Your task to perform on an android device: turn vacation reply on in the gmail app Image 0: 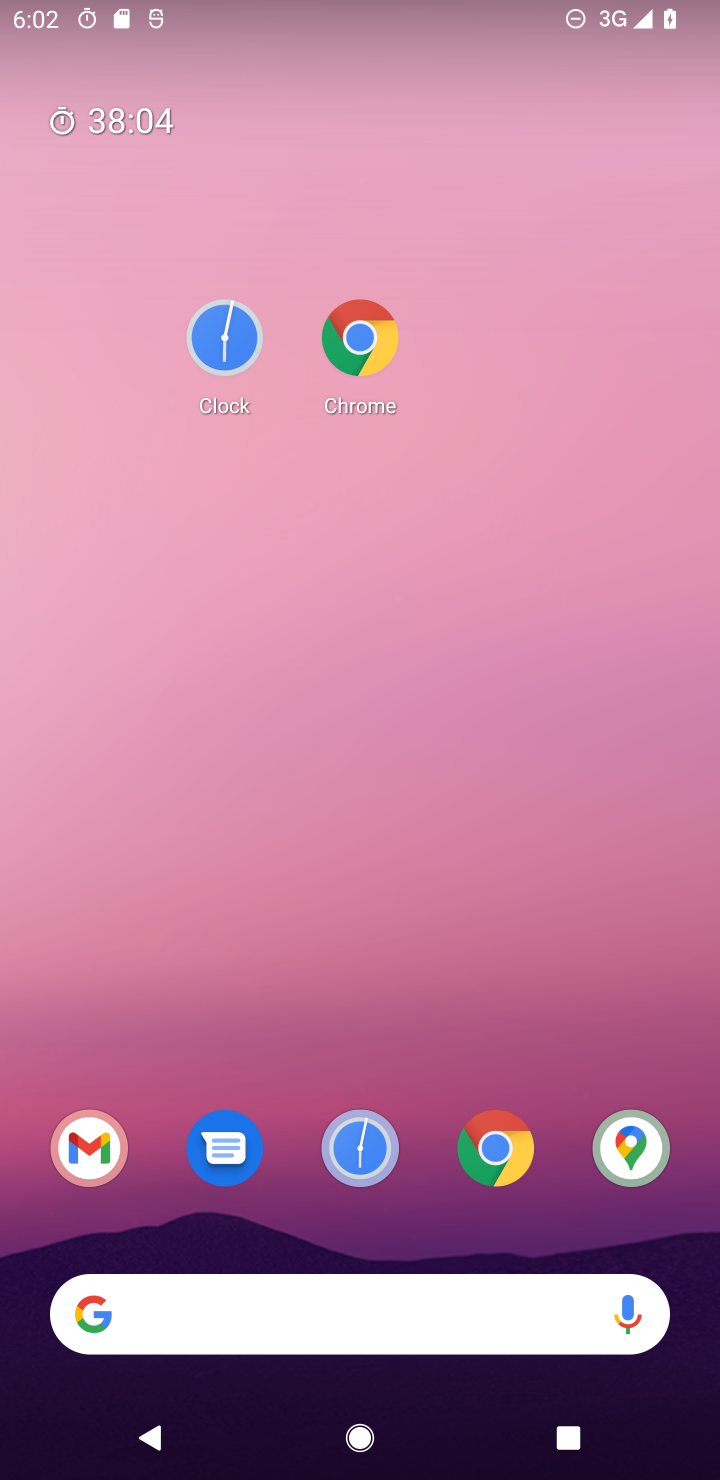
Step 0: click (504, 235)
Your task to perform on an android device: turn vacation reply on in the gmail app Image 1: 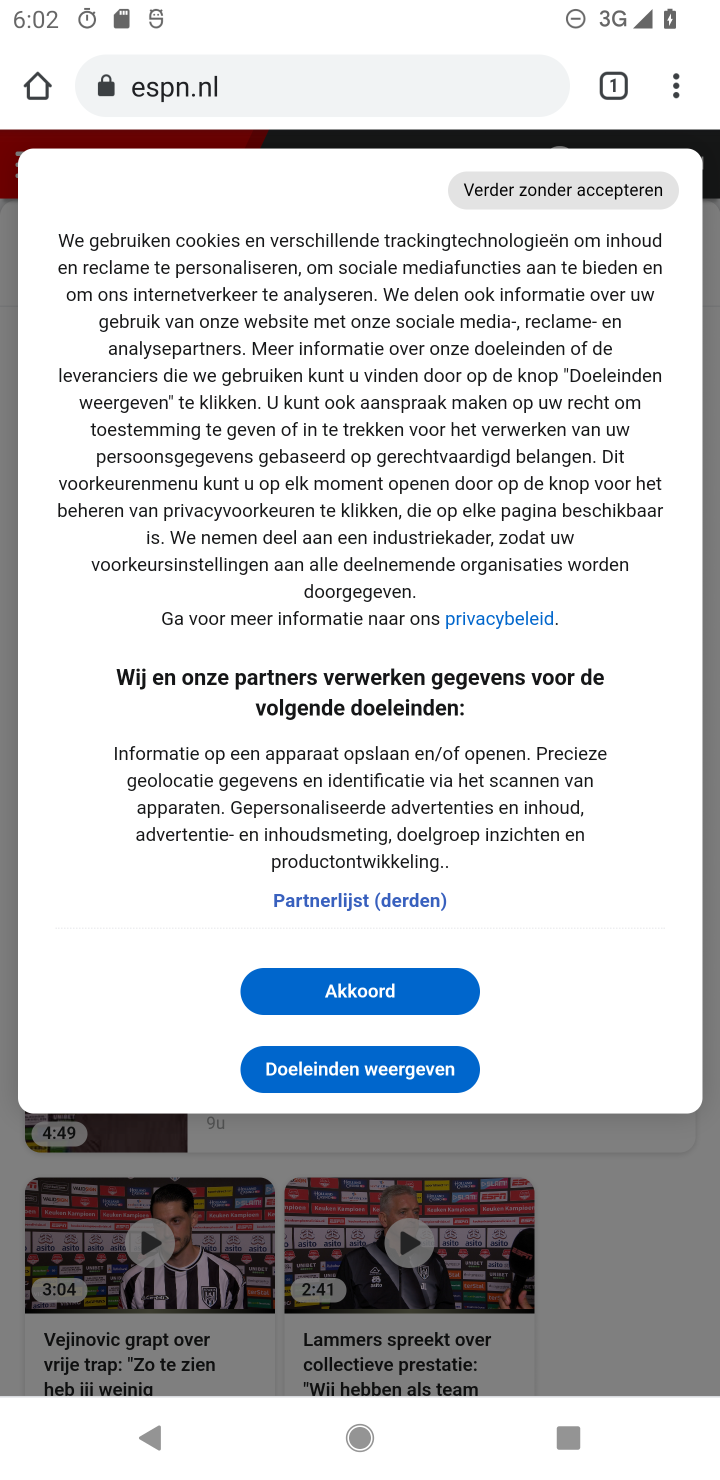
Step 1: press home button
Your task to perform on an android device: turn vacation reply on in the gmail app Image 2: 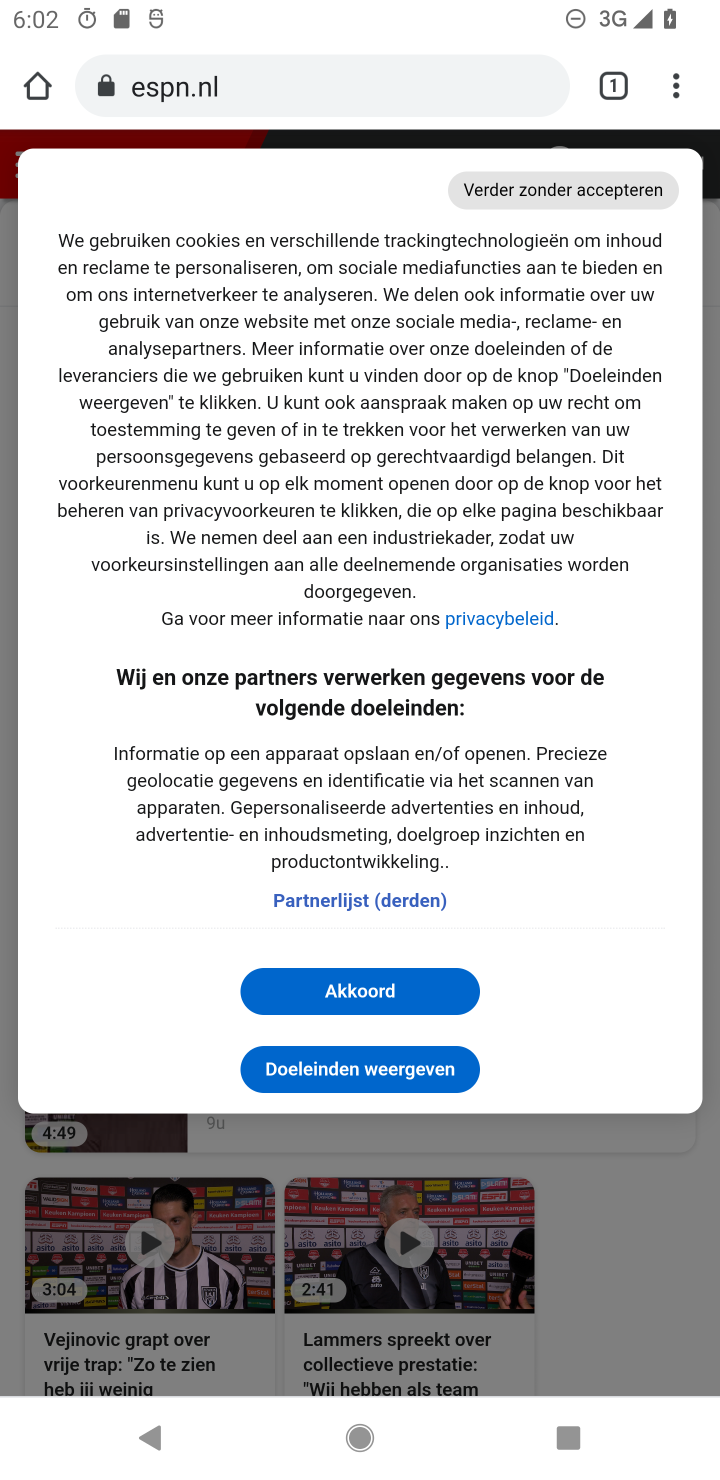
Step 2: drag from (321, 1298) to (424, 539)
Your task to perform on an android device: turn vacation reply on in the gmail app Image 3: 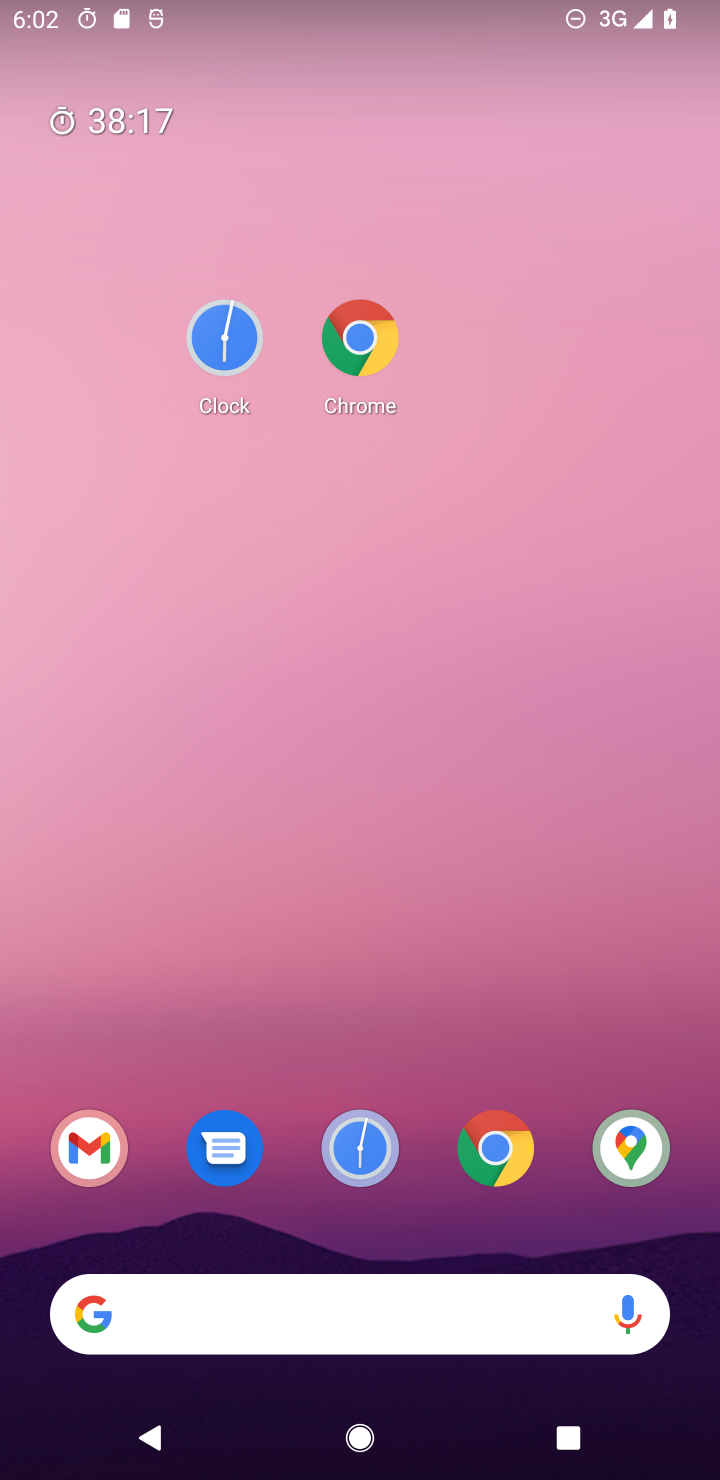
Step 3: click (341, 375)
Your task to perform on an android device: turn vacation reply on in the gmail app Image 4: 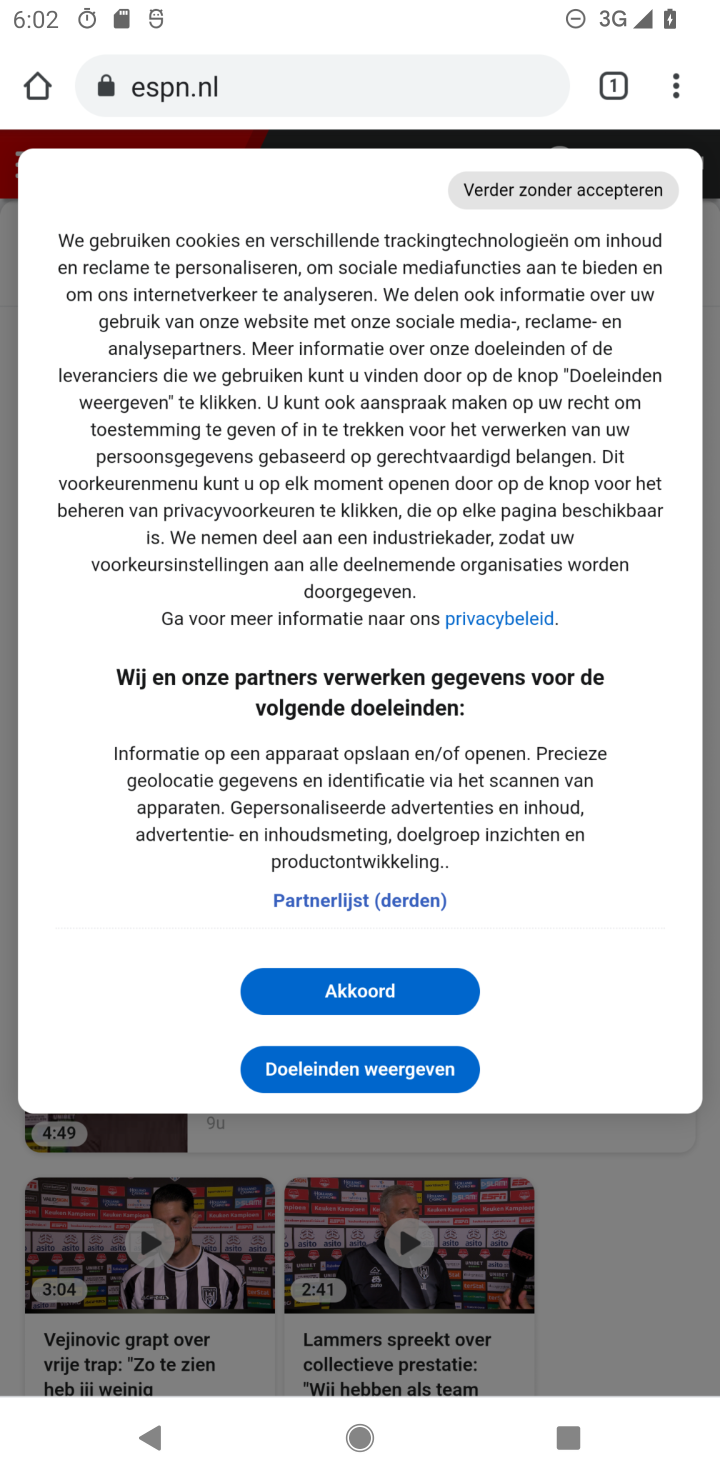
Step 4: click (306, 425)
Your task to perform on an android device: turn vacation reply on in the gmail app Image 5: 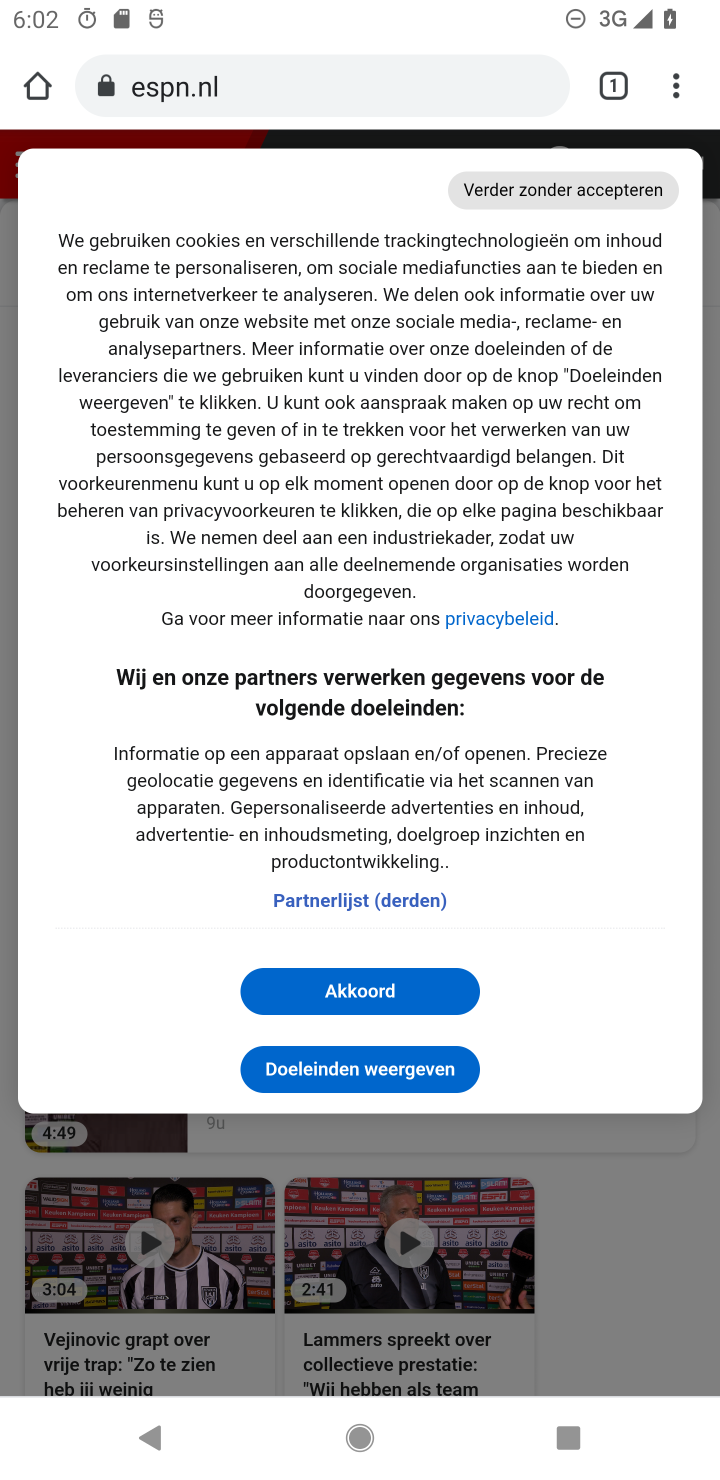
Step 5: press home button
Your task to perform on an android device: turn vacation reply on in the gmail app Image 6: 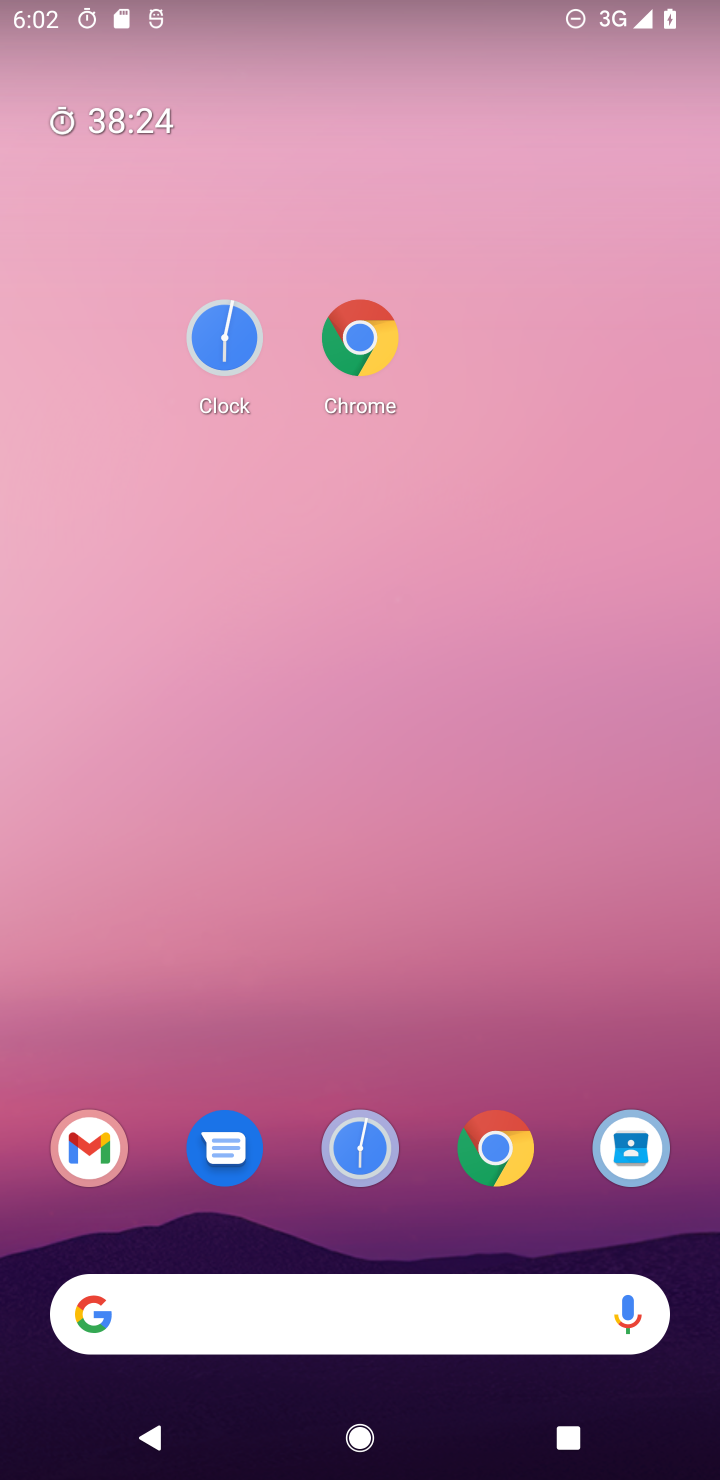
Step 6: drag from (478, 388) to (490, 271)
Your task to perform on an android device: turn vacation reply on in the gmail app Image 7: 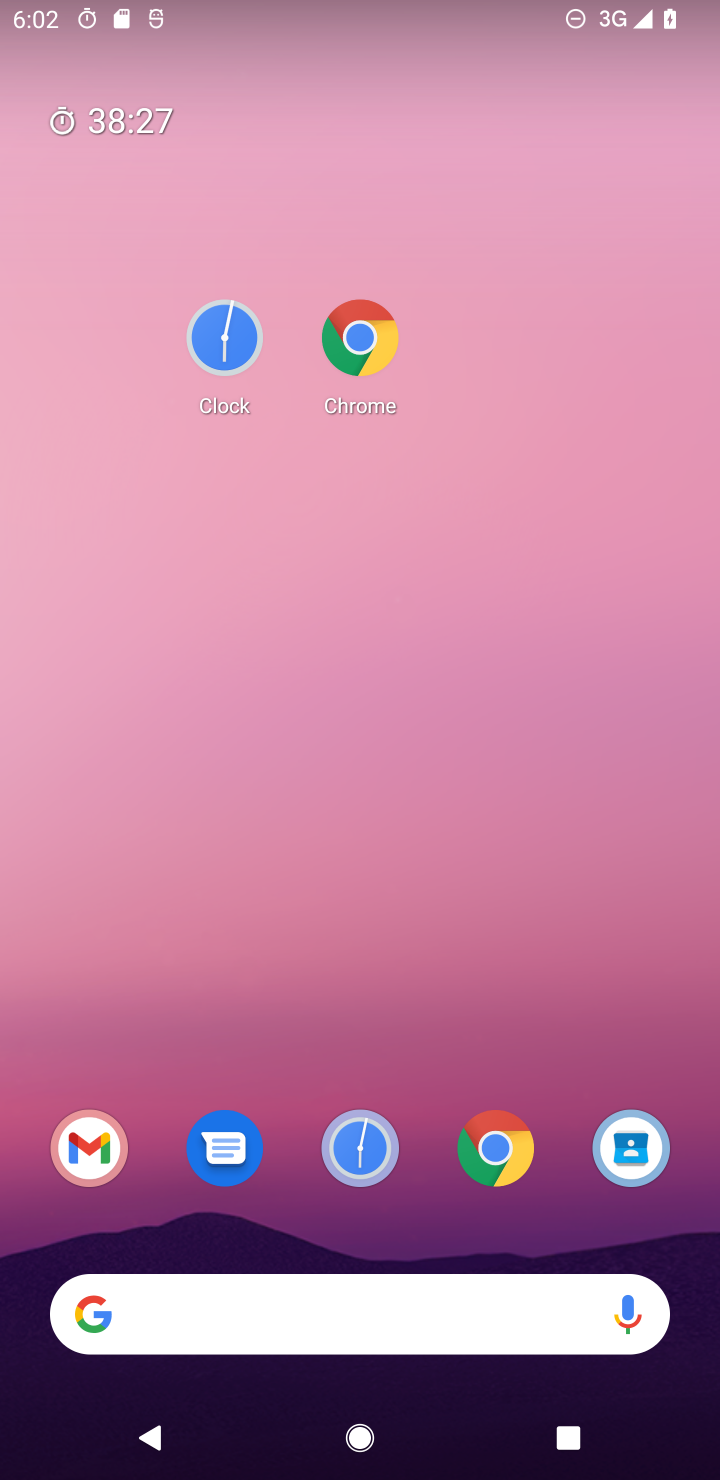
Step 7: drag from (271, 1184) to (239, 284)
Your task to perform on an android device: turn vacation reply on in the gmail app Image 8: 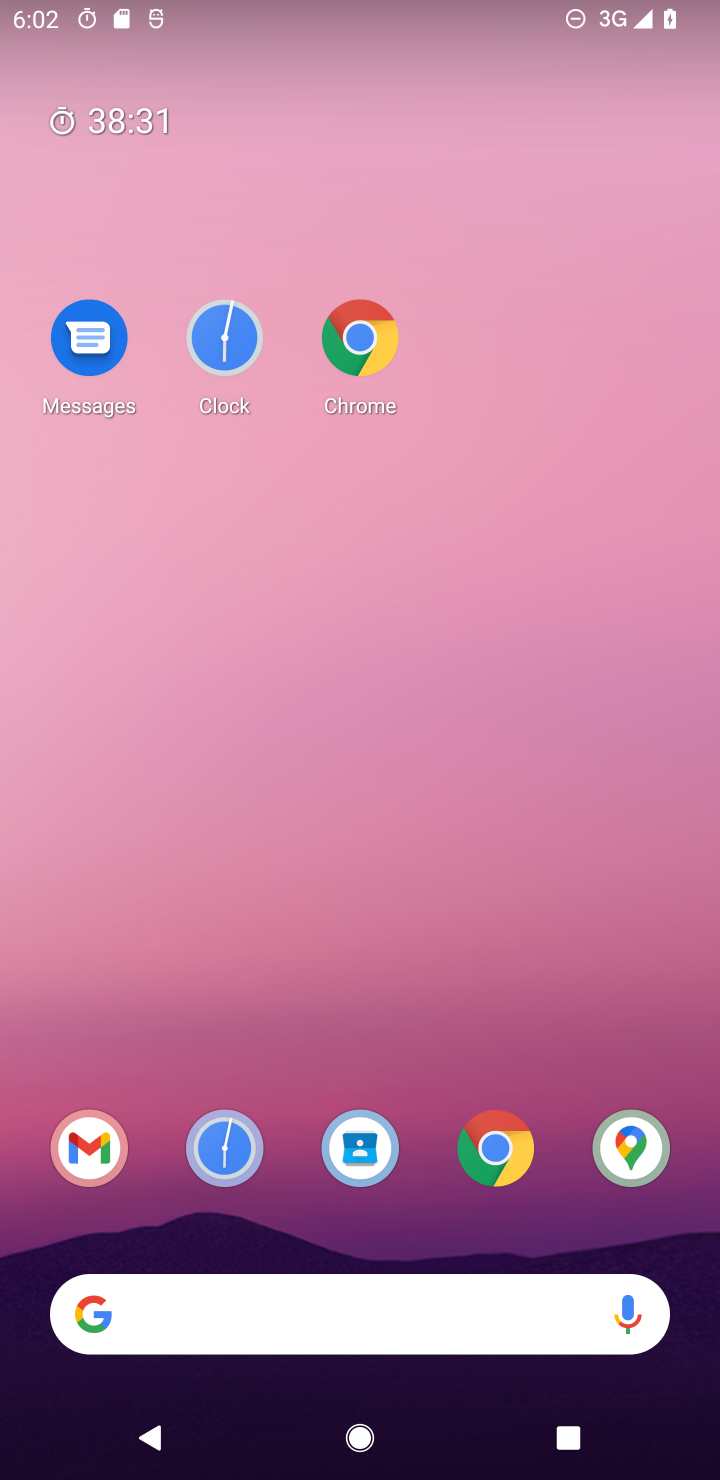
Step 8: click (77, 1136)
Your task to perform on an android device: turn vacation reply on in the gmail app Image 9: 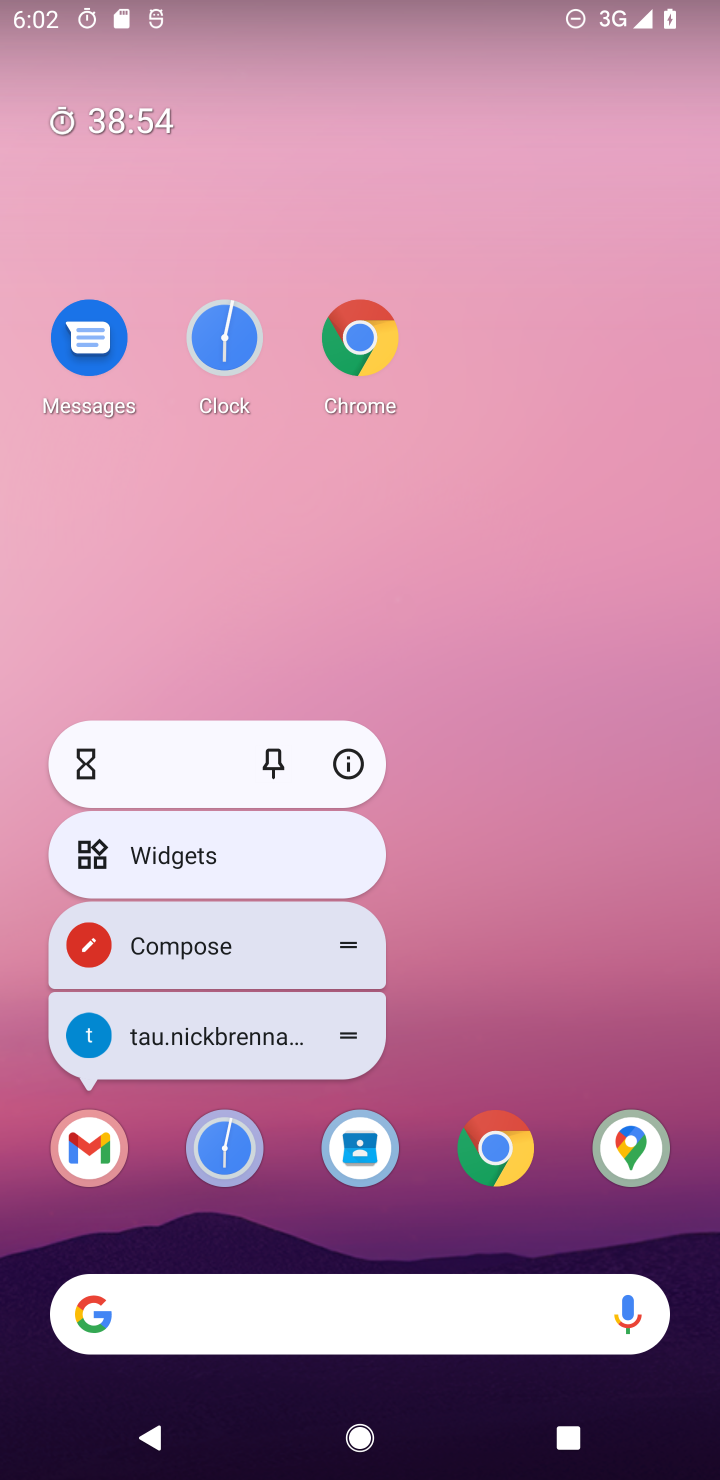
Step 9: click (352, 762)
Your task to perform on an android device: turn vacation reply on in the gmail app Image 10: 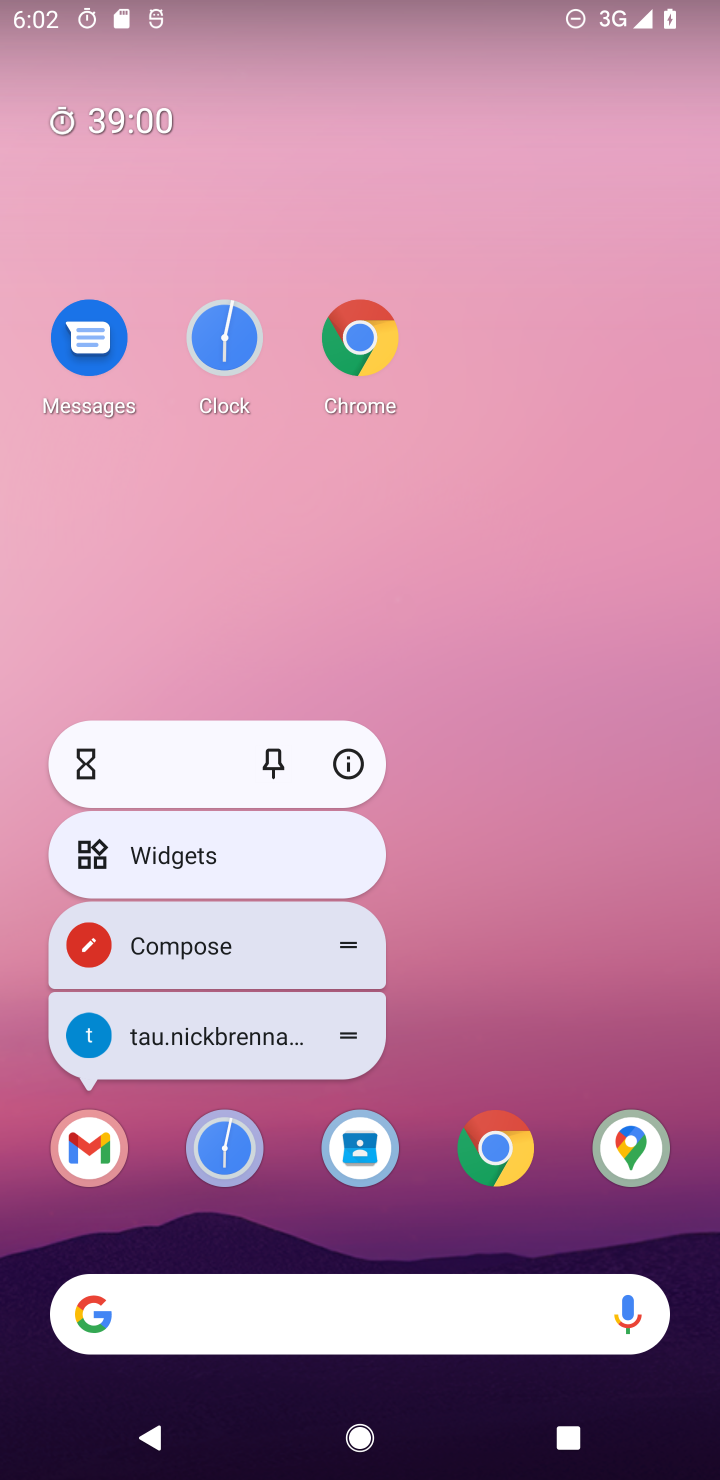
Step 10: click (354, 763)
Your task to perform on an android device: turn vacation reply on in the gmail app Image 11: 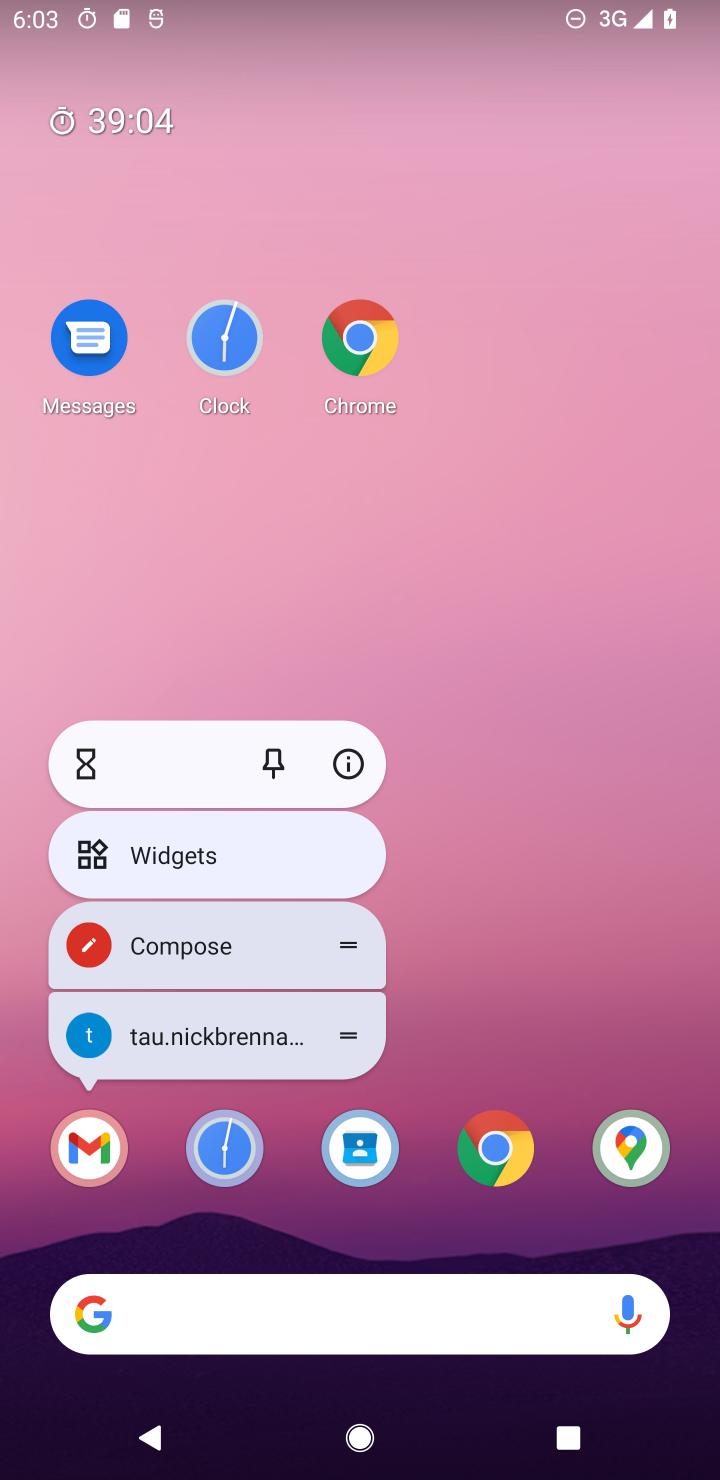
Step 11: click (354, 763)
Your task to perform on an android device: turn vacation reply on in the gmail app Image 12: 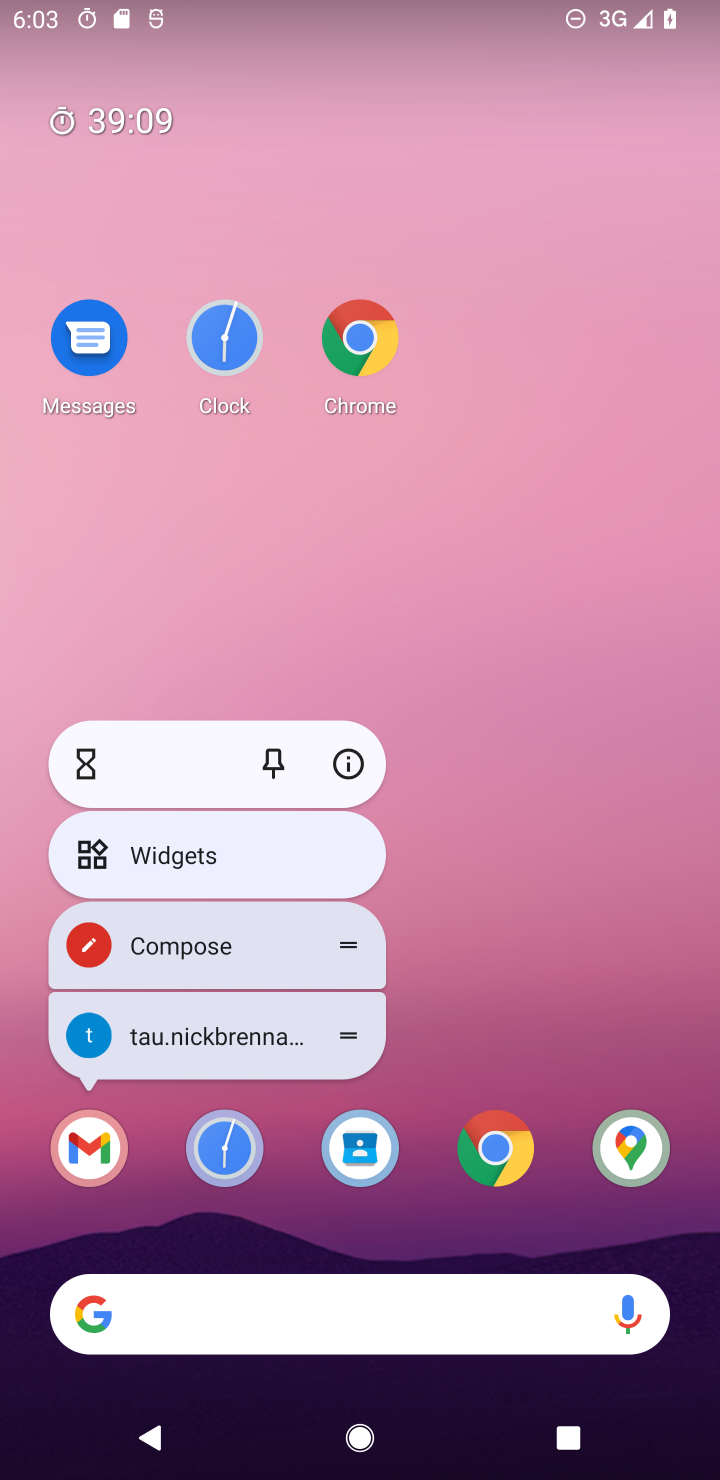
Step 12: click (362, 753)
Your task to perform on an android device: turn vacation reply on in the gmail app Image 13: 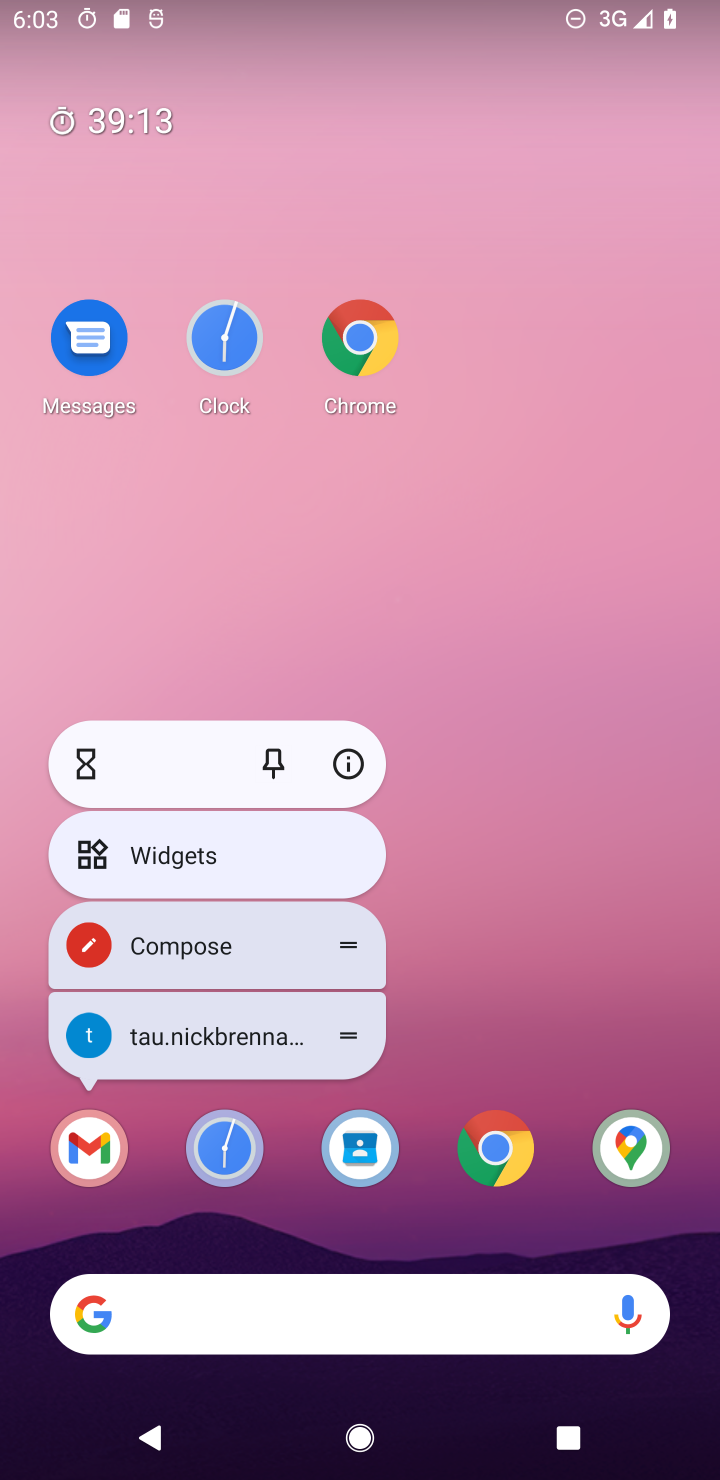
Step 13: click (336, 761)
Your task to perform on an android device: turn vacation reply on in the gmail app Image 14: 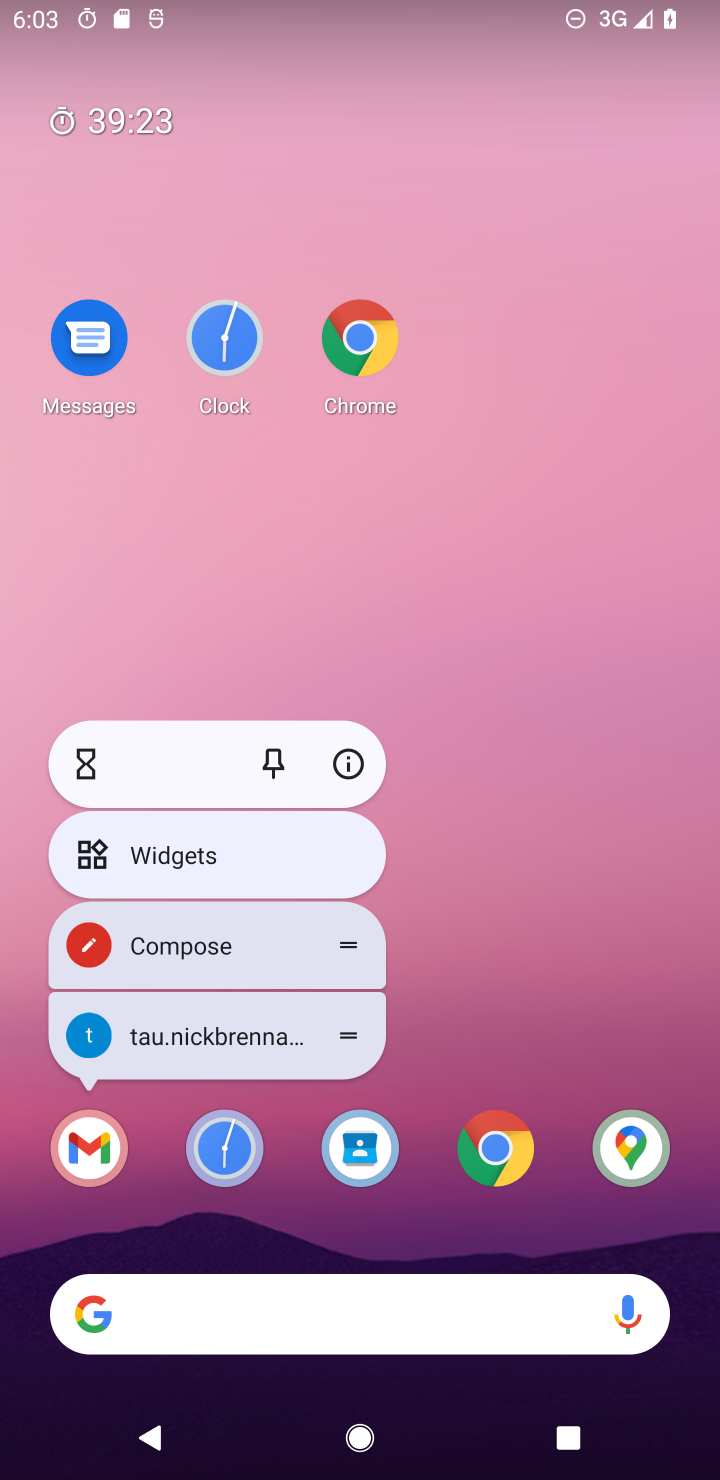
Step 14: click (348, 753)
Your task to perform on an android device: turn vacation reply on in the gmail app Image 15: 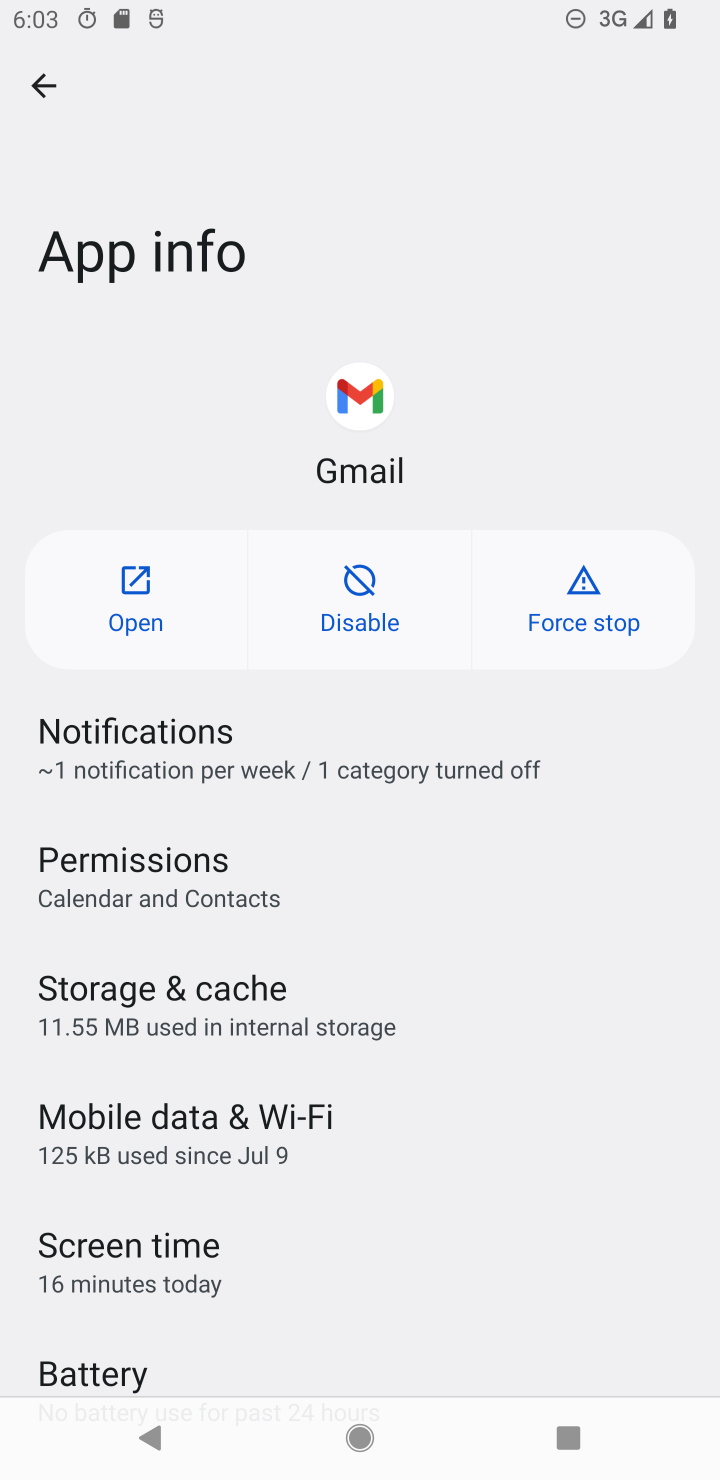
Step 15: click (153, 594)
Your task to perform on an android device: turn vacation reply on in the gmail app Image 16: 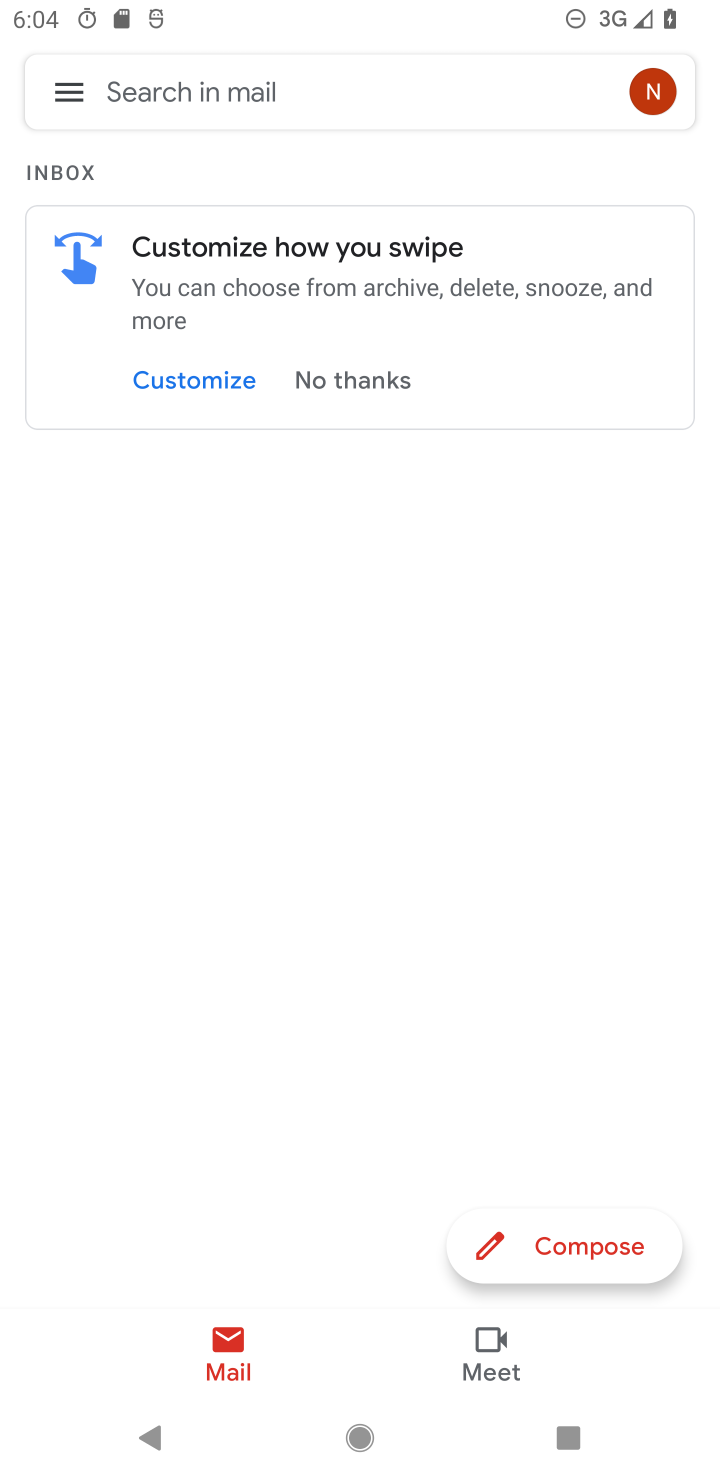
Step 16: drag from (399, 1196) to (530, 463)
Your task to perform on an android device: turn vacation reply on in the gmail app Image 17: 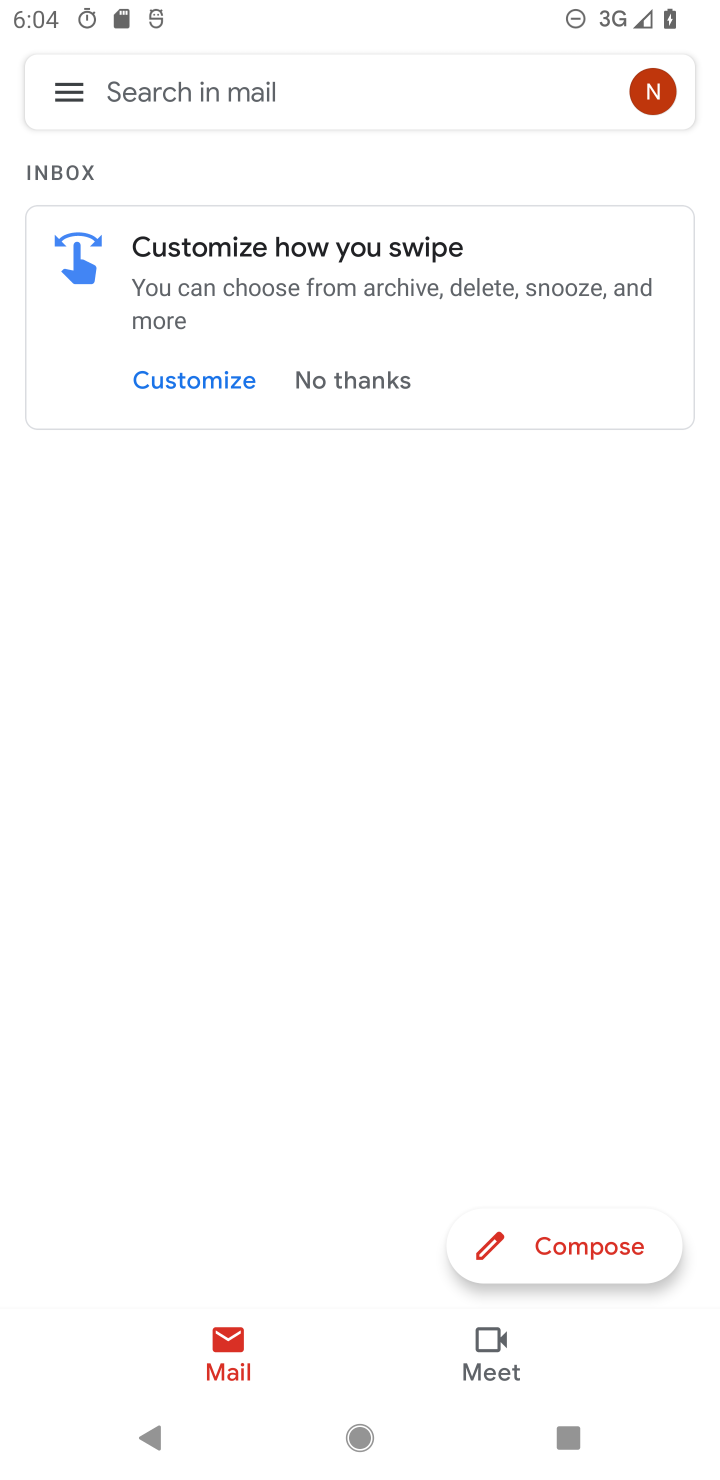
Step 17: drag from (359, 1334) to (361, 623)
Your task to perform on an android device: turn vacation reply on in the gmail app Image 18: 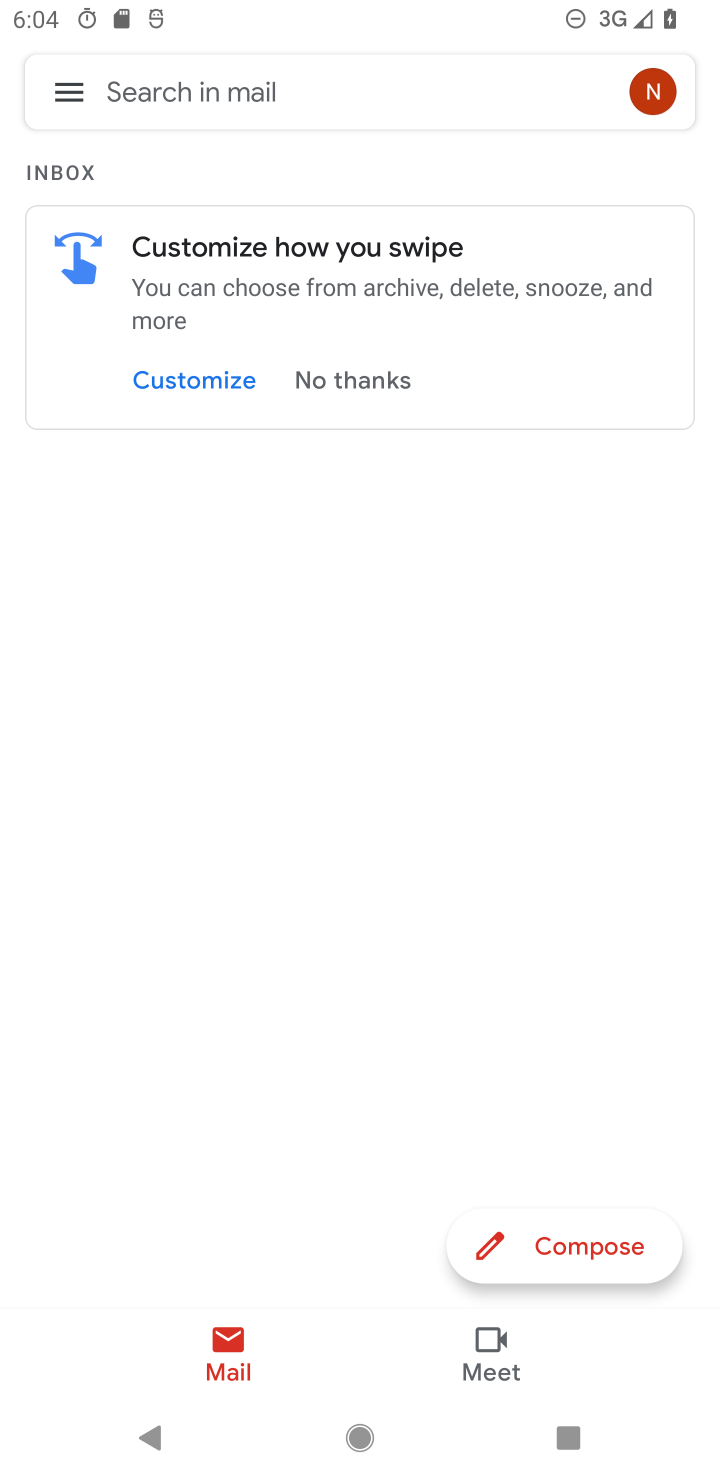
Step 18: drag from (384, 1150) to (503, 496)
Your task to perform on an android device: turn vacation reply on in the gmail app Image 19: 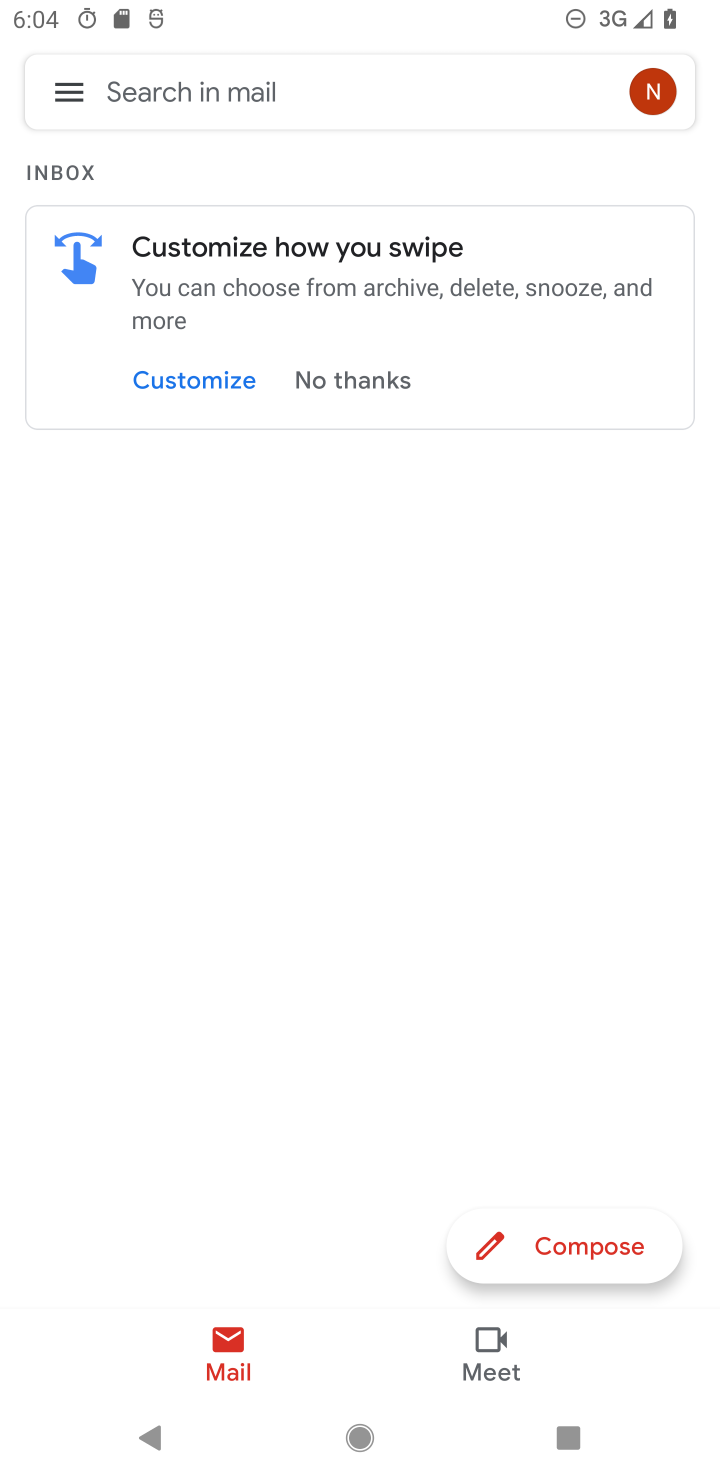
Step 19: click (57, 74)
Your task to perform on an android device: turn vacation reply on in the gmail app Image 20: 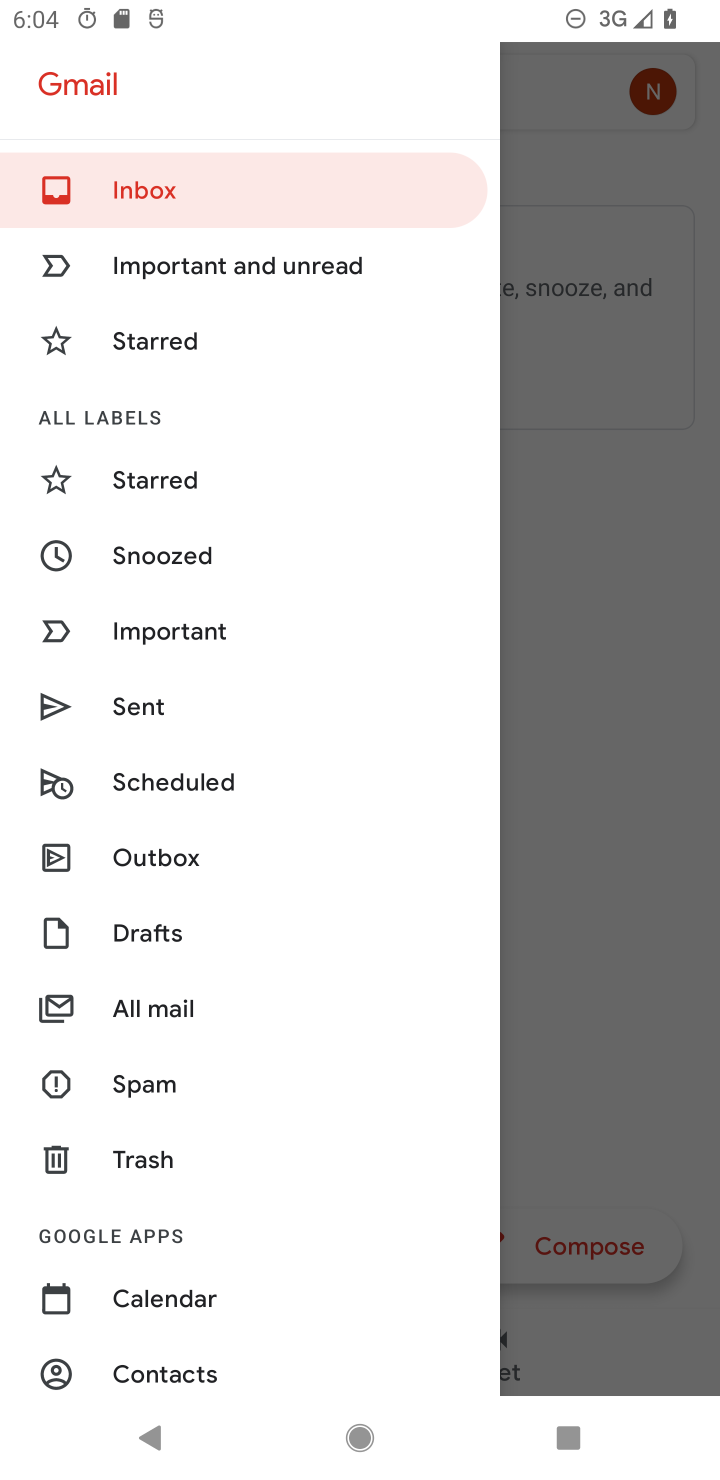
Step 20: drag from (226, 1060) to (317, 363)
Your task to perform on an android device: turn vacation reply on in the gmail app Image 21: 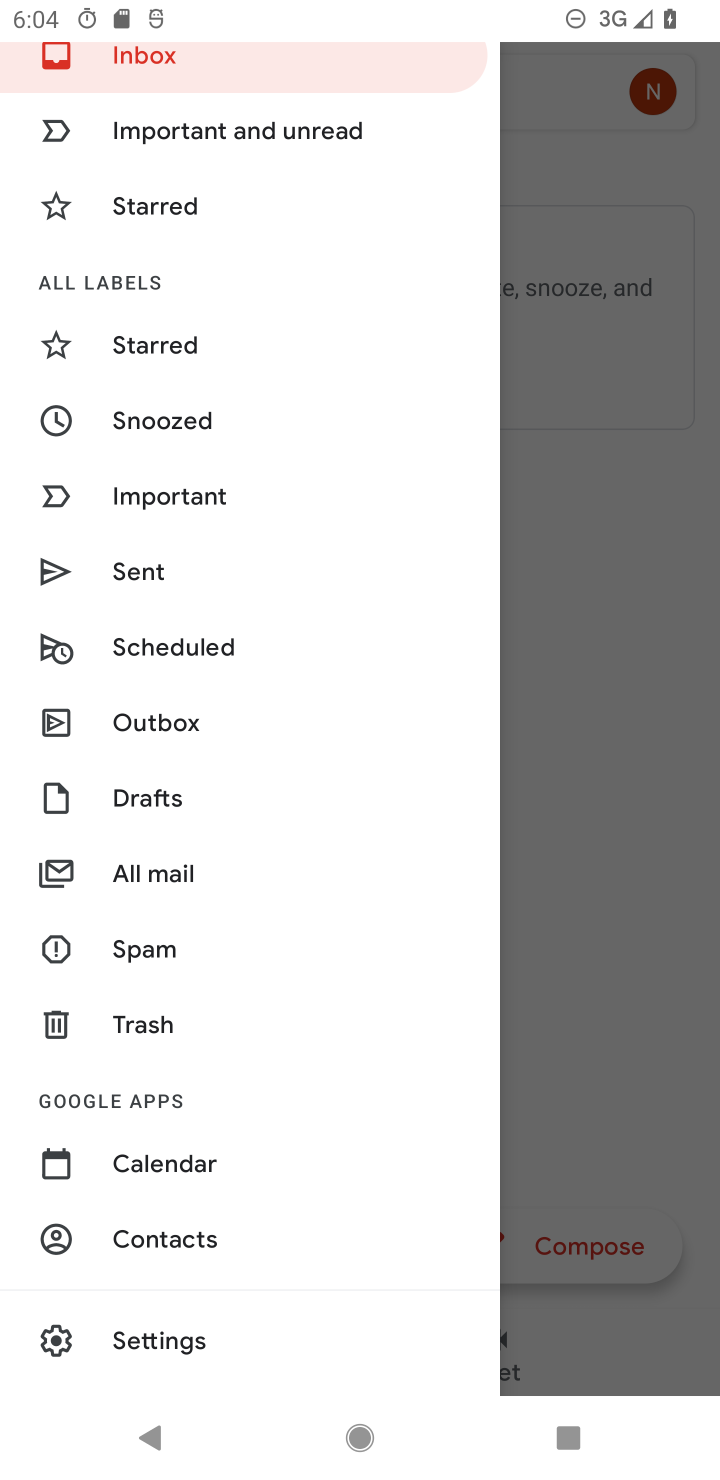
Step 21: click (154, 1323)
Your task to perform on an android device: turn vacation reply on in the gmail app Image 22: 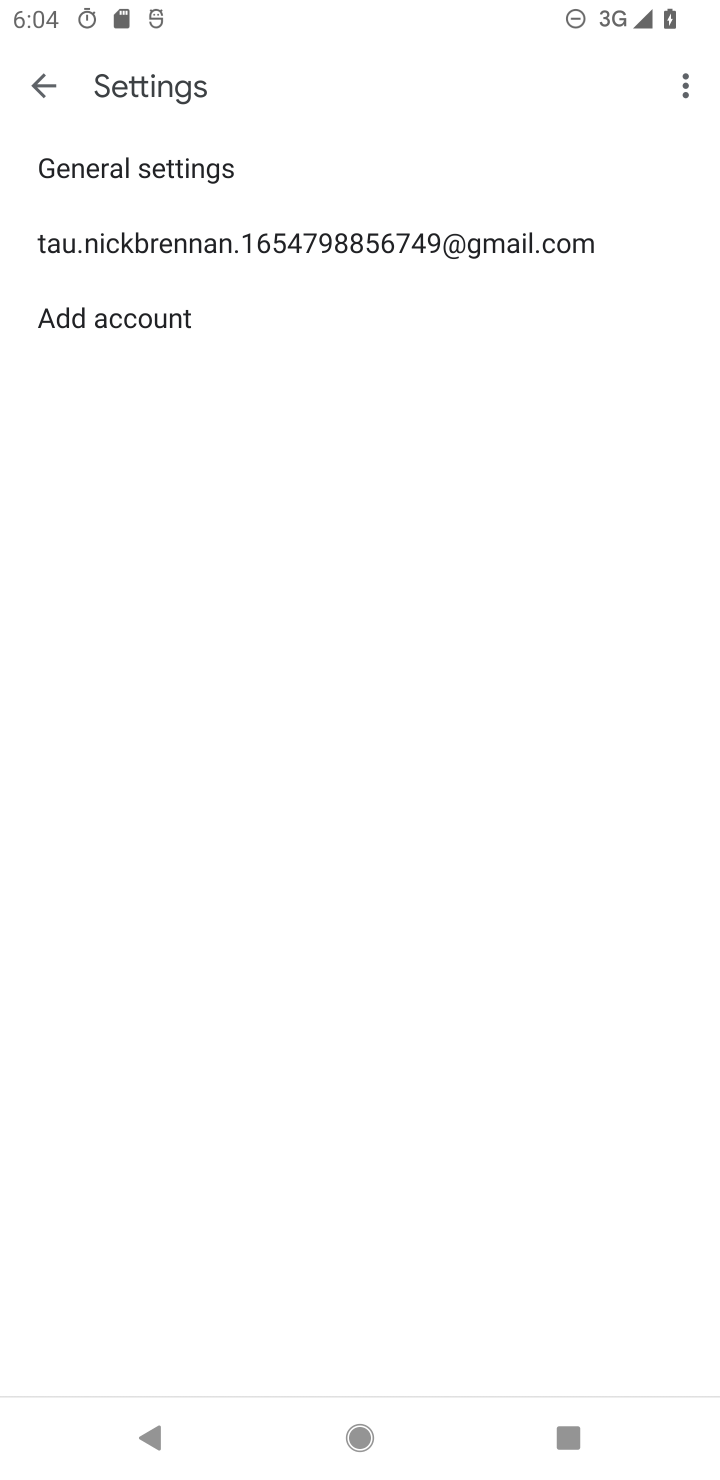
Step 22: click (252, 249)
Your task to perform on an android device: turn vacation reply on in the gmail app Image 23: 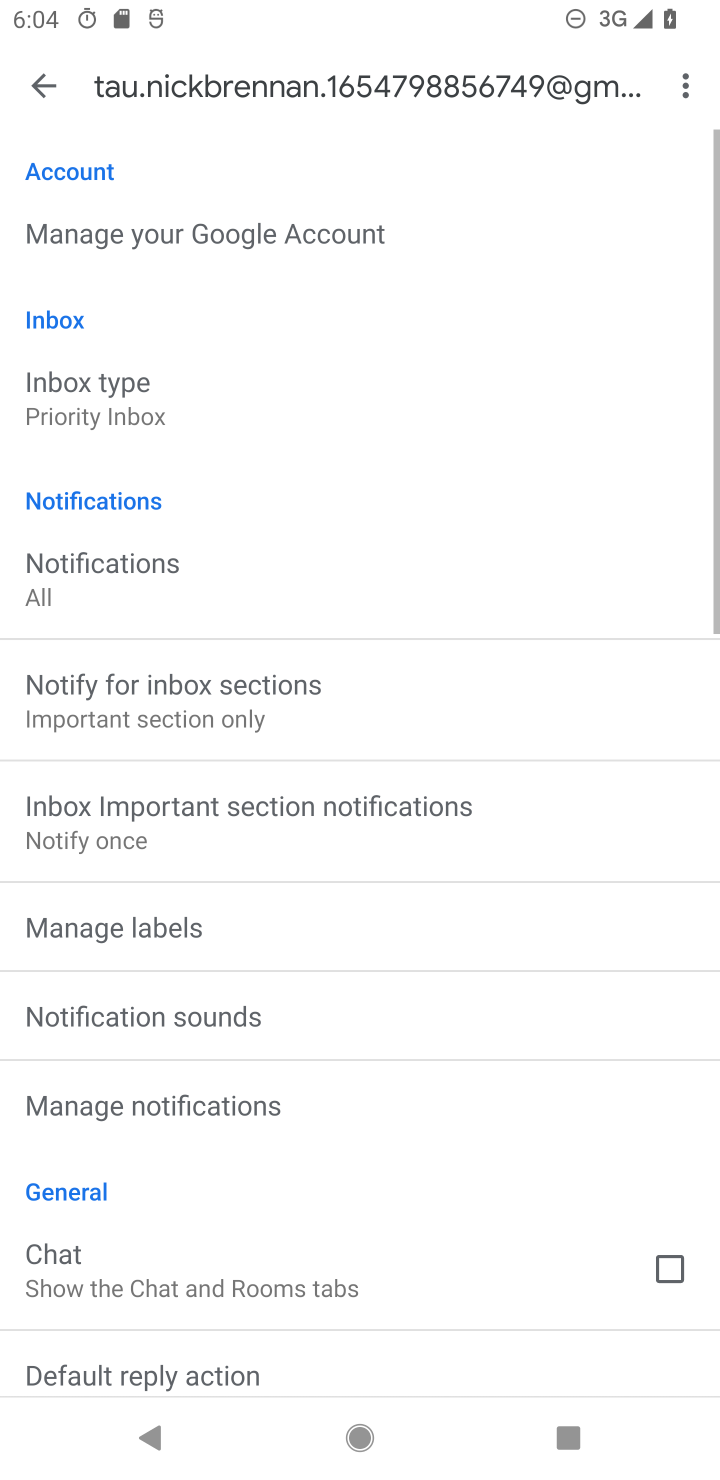
Step 23: drag from (229, 1187) to (395, 196)
Your task to perform on an android device: turn vacation reply on in the gmail app Image 24: 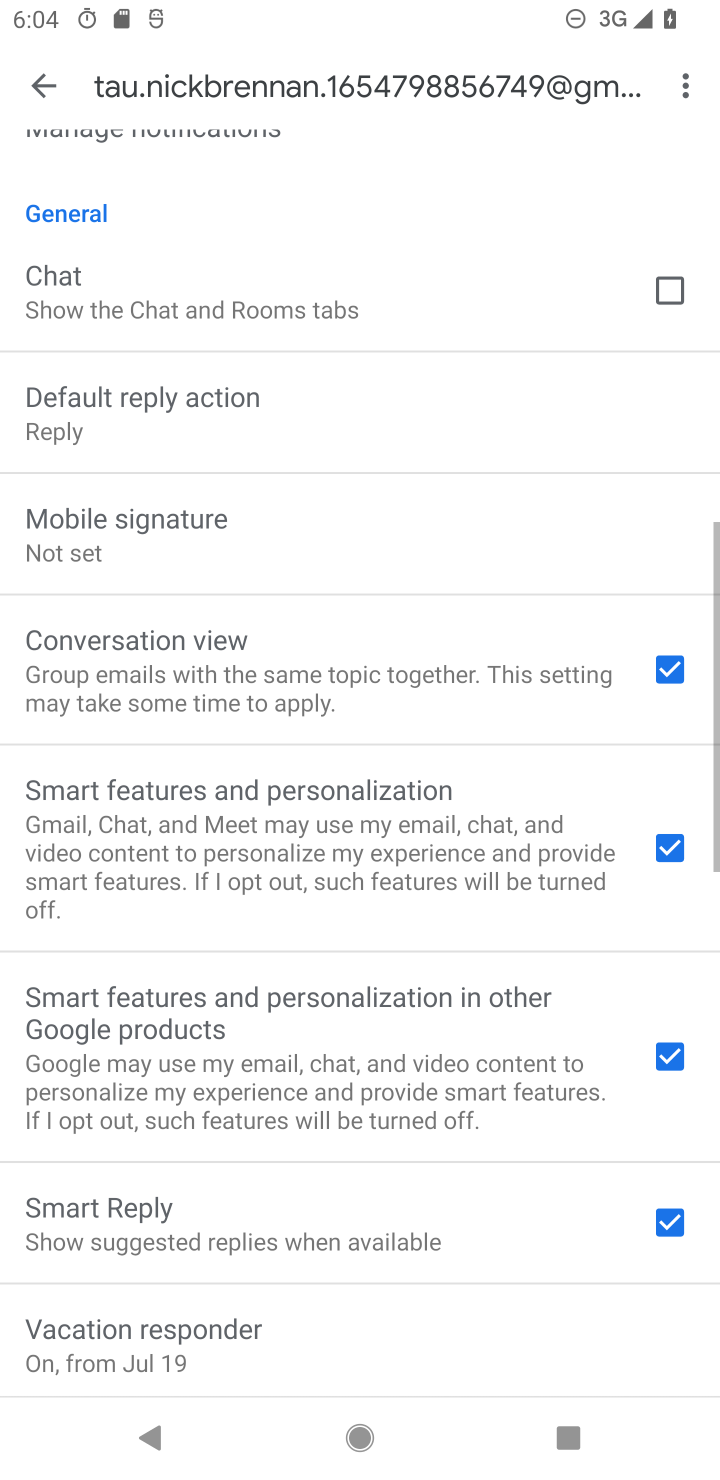
Step 24: drag from (346, 1083) to (552, 522)
Your task to perform on an android device: turn vacation reply on in the gmail app Image 25: 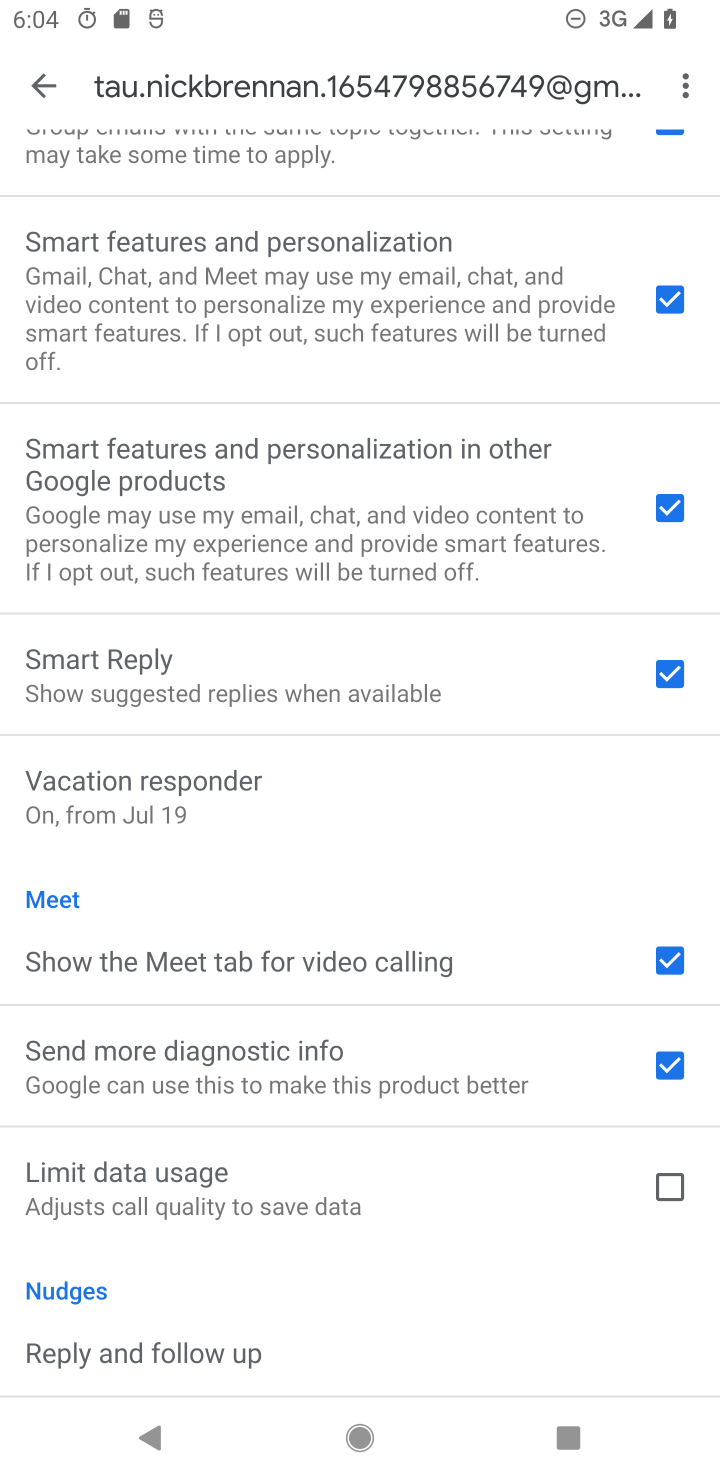
Step 25: click (200, 805)
Your task to perform on an android device: turn vacation reply on in the gmail app Image 26: 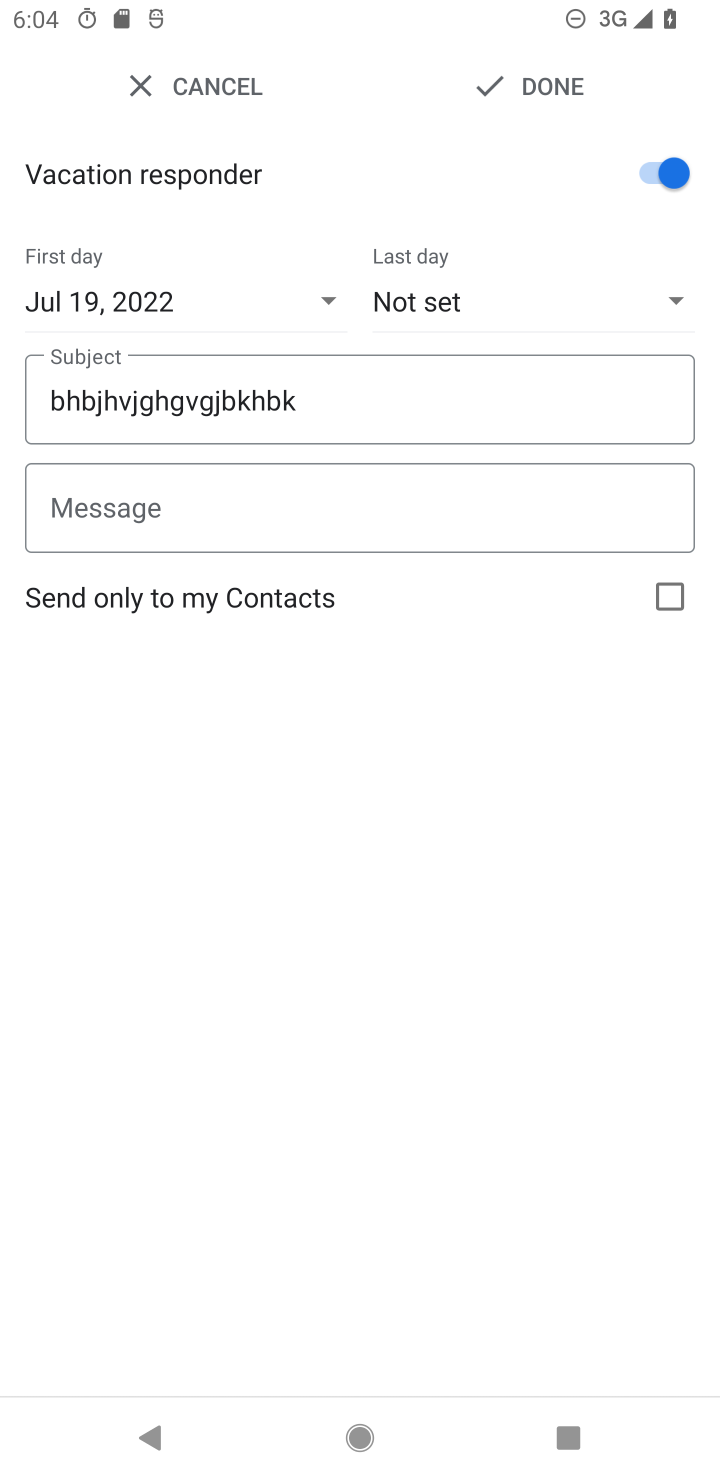
Step 26: click (525, 68)
Your task to perform on an android device: turn vacation reply on in the gmail app Image 27: 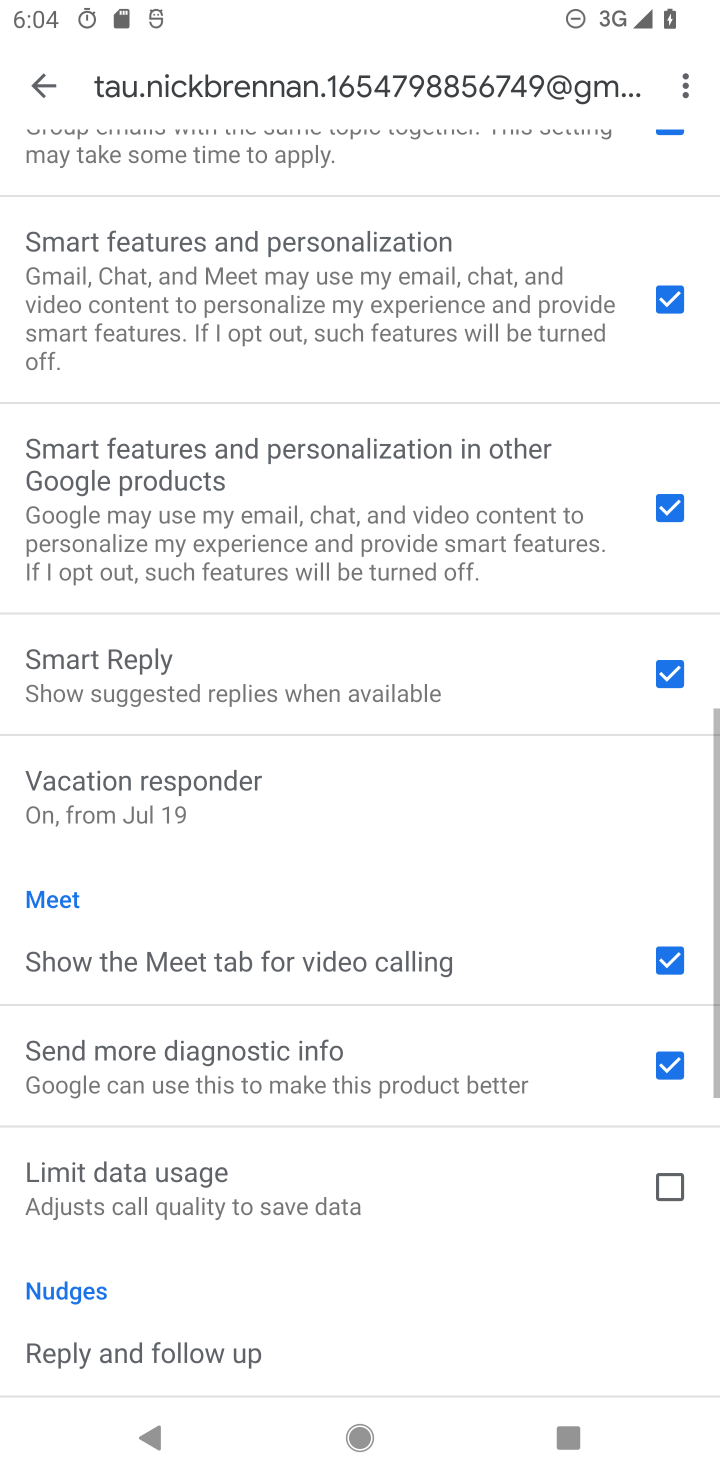
Step 27: task complete